Your task to perform on an android device: Open settings Image 0: 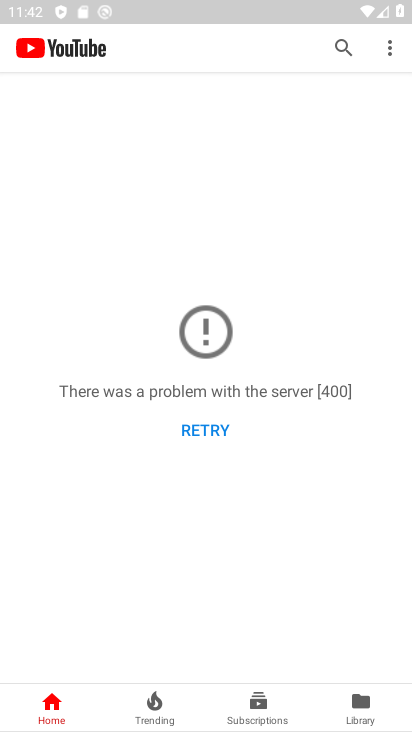
Step 0: press back button
Your task to perform on an android device: Open settings Image 1: 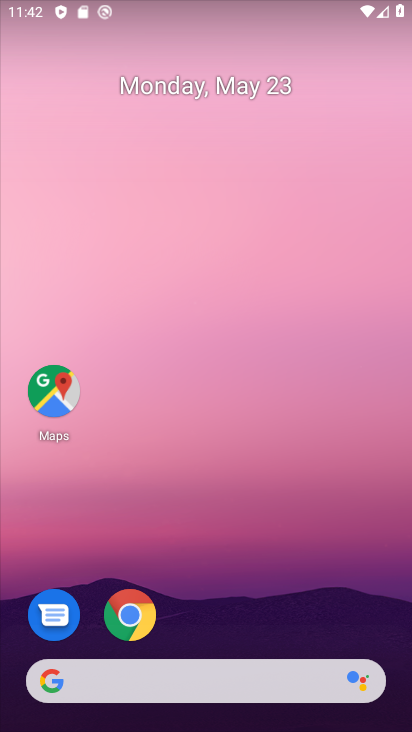
Step 1: drag from (255, 559) to (219, 72)
Your task to perform on an android device: Open settings Image 2: 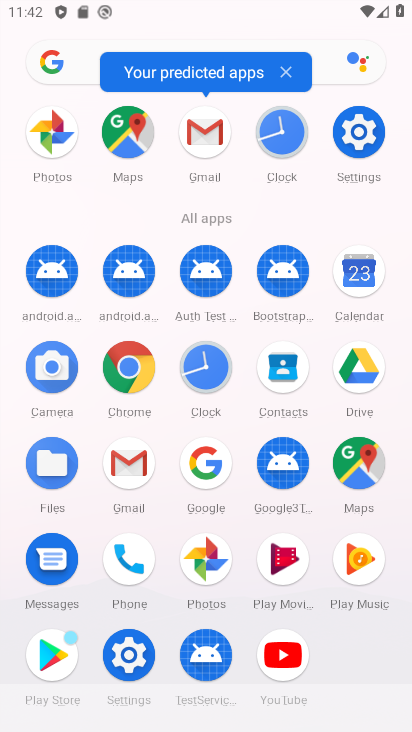
Step 2: click (131, 650)
Your task to perform on an android device: Open settings Image 3: 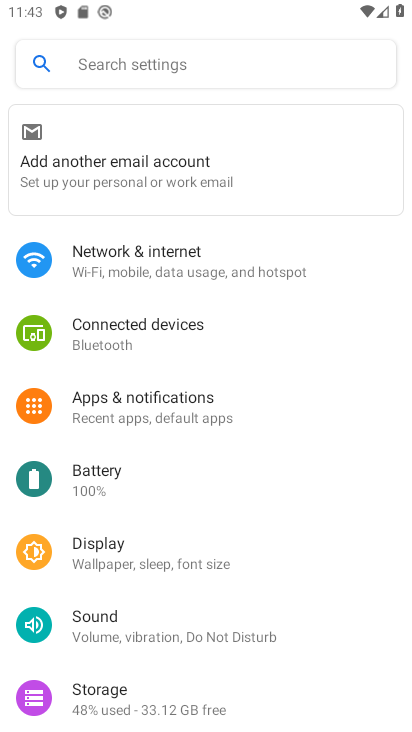
Step 3: task complete